Your task to perform on an android device: Go to accessibility settings Image 0: 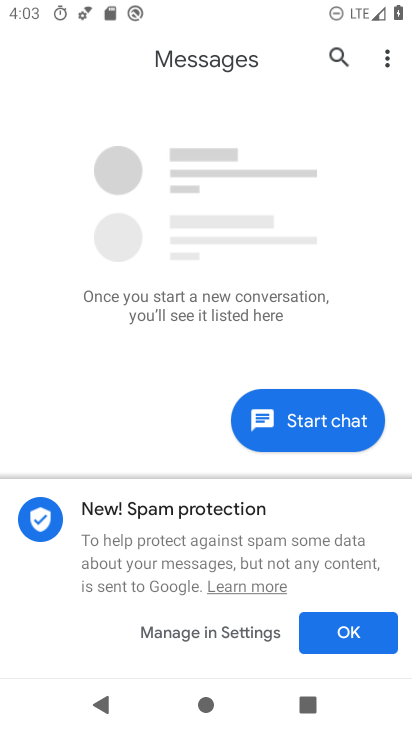
Step 0: press home button
Your task to perform on an android device: Go to accessibility settings Image 1: 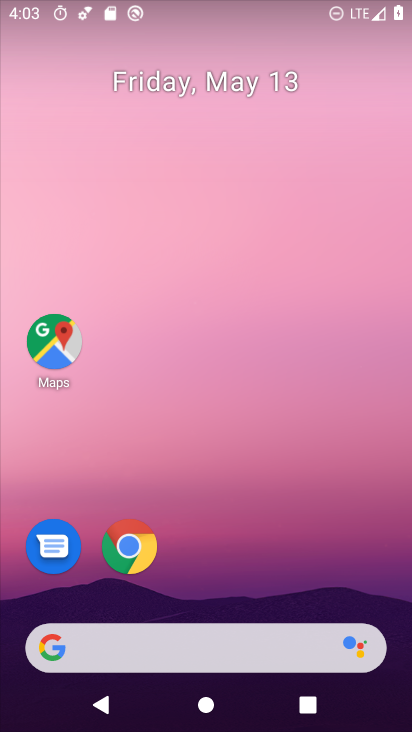
Step 1: drag from (184, 483) to (249, 161)
Your task to perform on an android device: Go to accessibility settings Image 2: 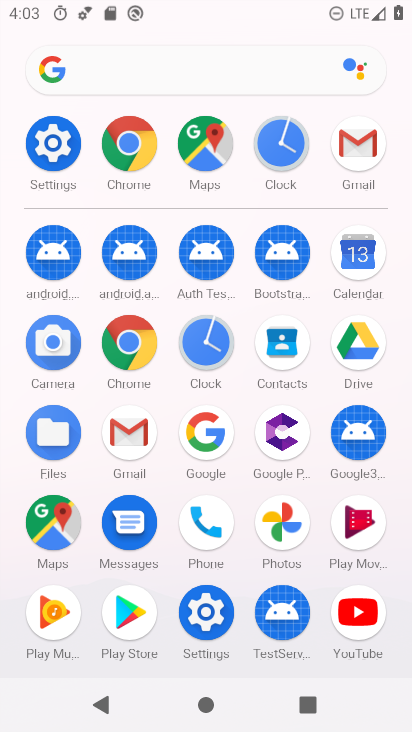
Step 2: click (59, 153)
Your task to perform on an android device: Go to accessibility settings Image 3: 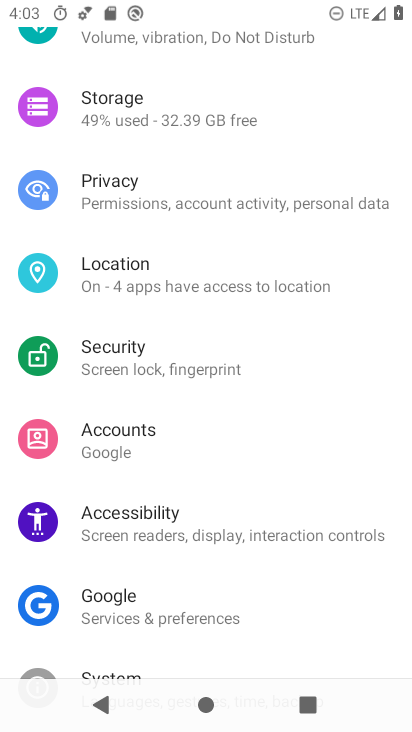
Step 3: click (159, 539)
Your task to perform on an android device: Go to accessibility settings Image 4: 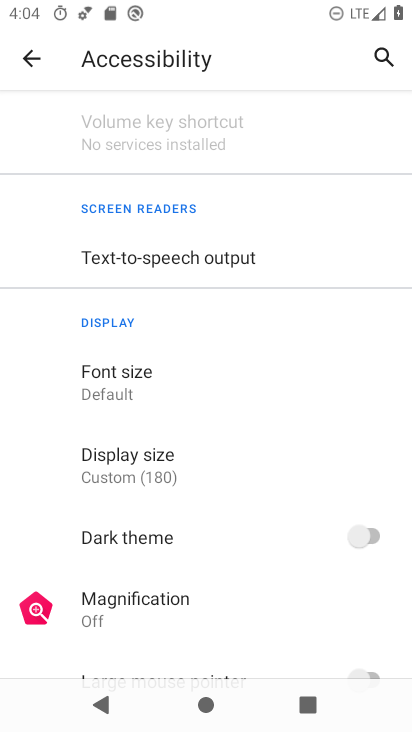
Step 4: task complete